Your task to perform on an android device: see sites visited before in the chrome app Image 0: 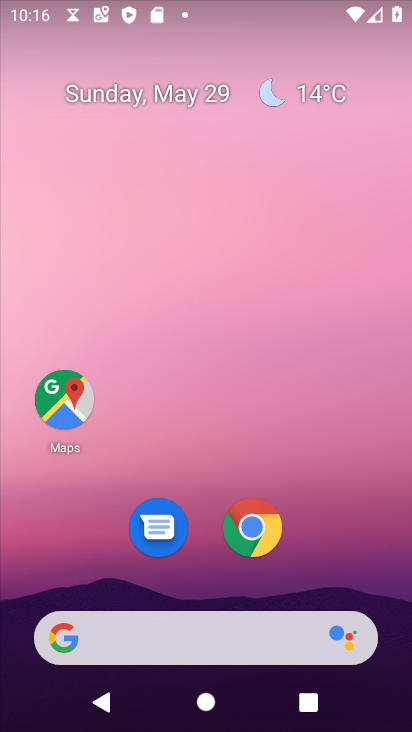
Step 0: press home button
Your task to perform on an android device: see sites visited before in the chrome app Image 1: 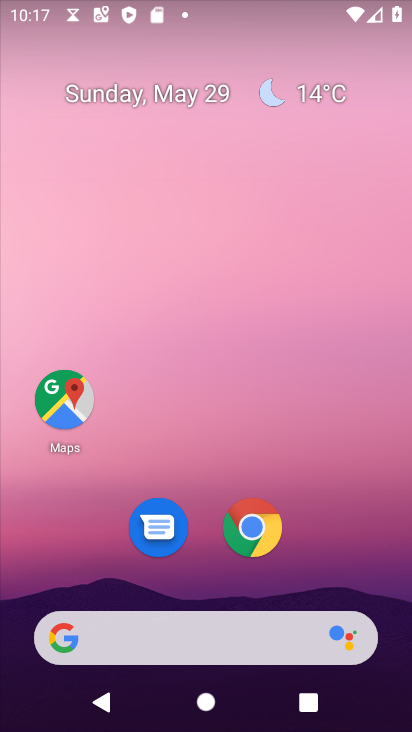
Step 1: click (251, 530)
Your task to perform on an android device: see sites visited before in the chrome app Image 2: 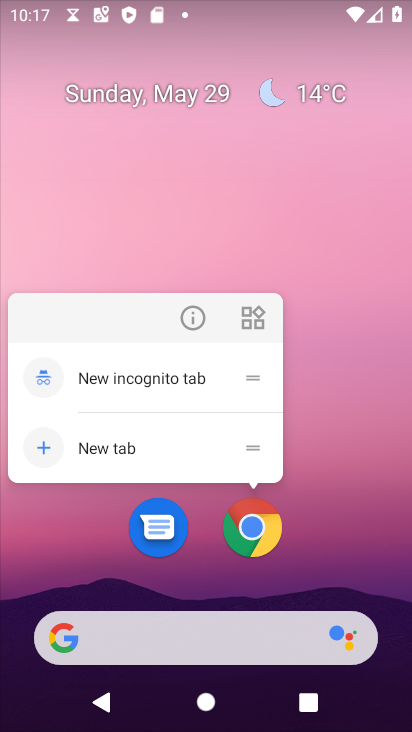
Step 2: click (257, 534)
Your task to perform on an android device: see sites visited before in the chrome app Image 3: 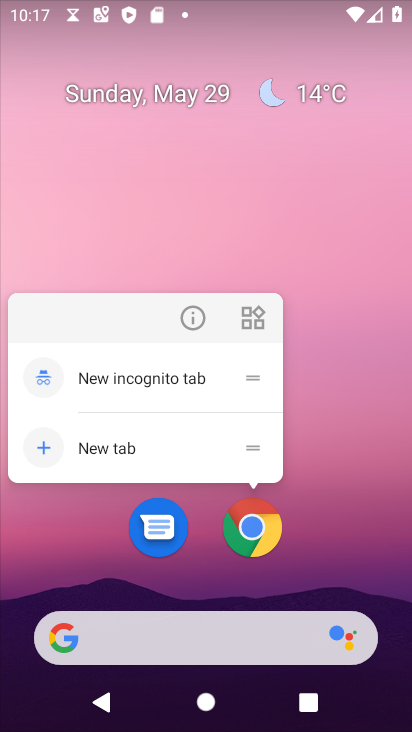
Step 3: click (255, 549)
Your task to perform on an android device: see sites visited before in the chrome app Image 4: 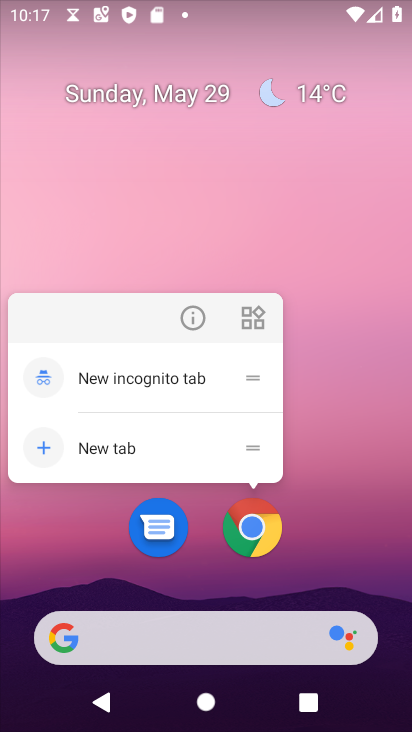
Step 4: click (243, 532)
Your task to perform on an android device: see sites visited before in the chrome app Image 5: 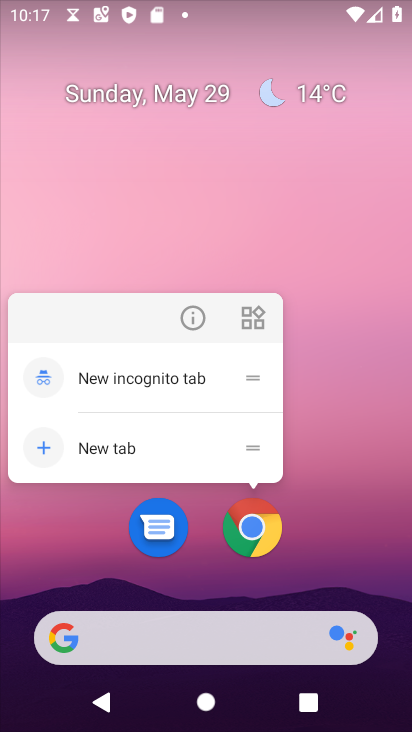
Step 5: click (243, 532)
Your task to perform on an android device: see sites visited before in the chrome app Image 6: 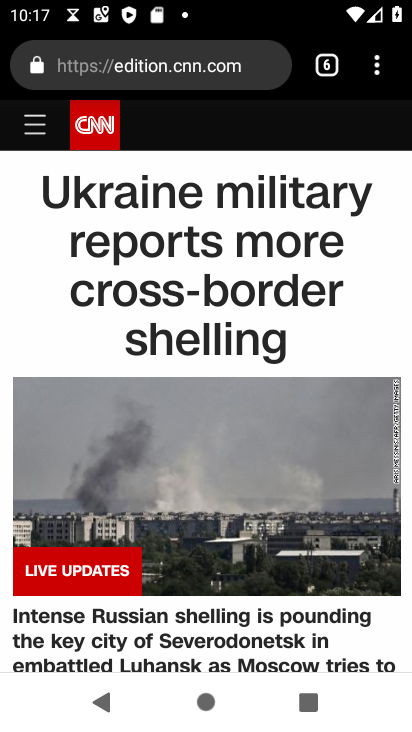
Step 6: task complete